Your task to perform on an android device: Go to internet settings Image 0: 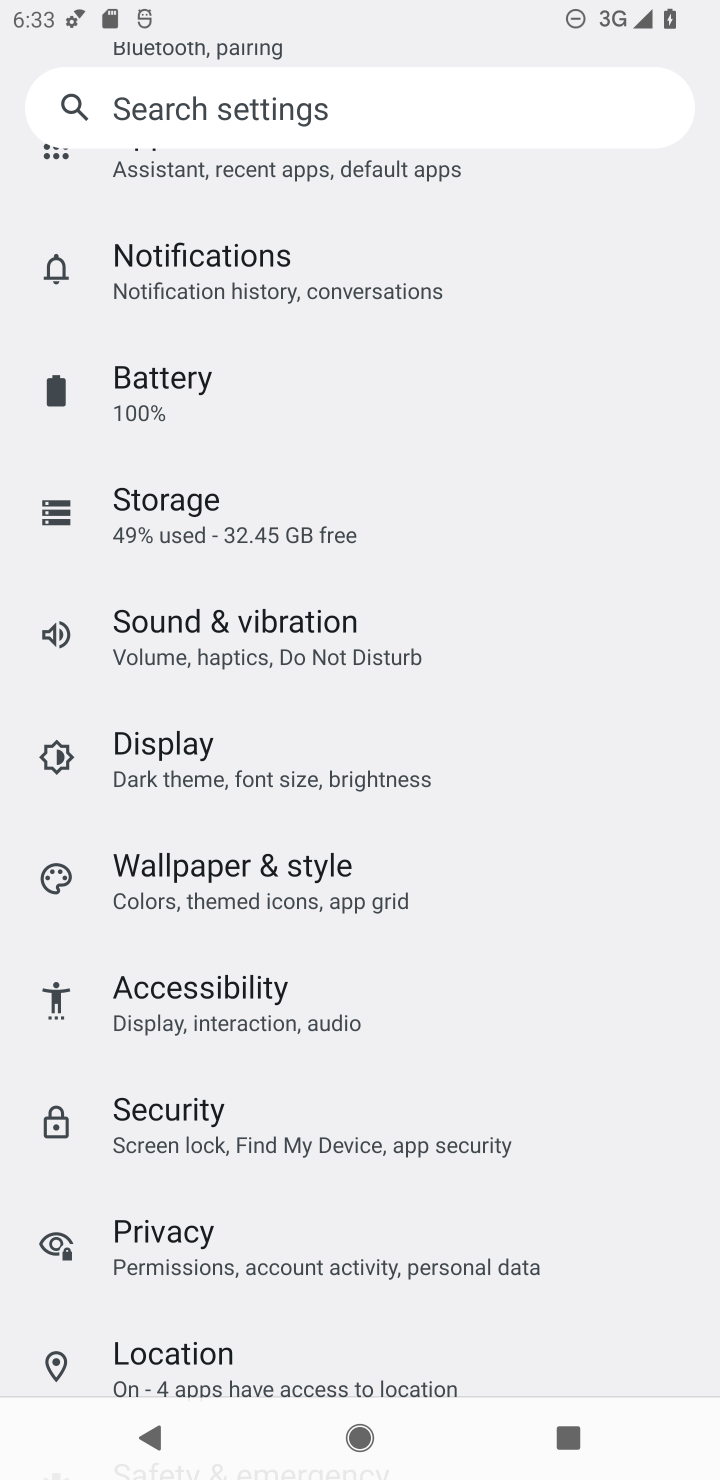
Step 0: drag from (336, 306) to (424, 965)
Your task to perform on an android device: Go to internet settings Image 1: 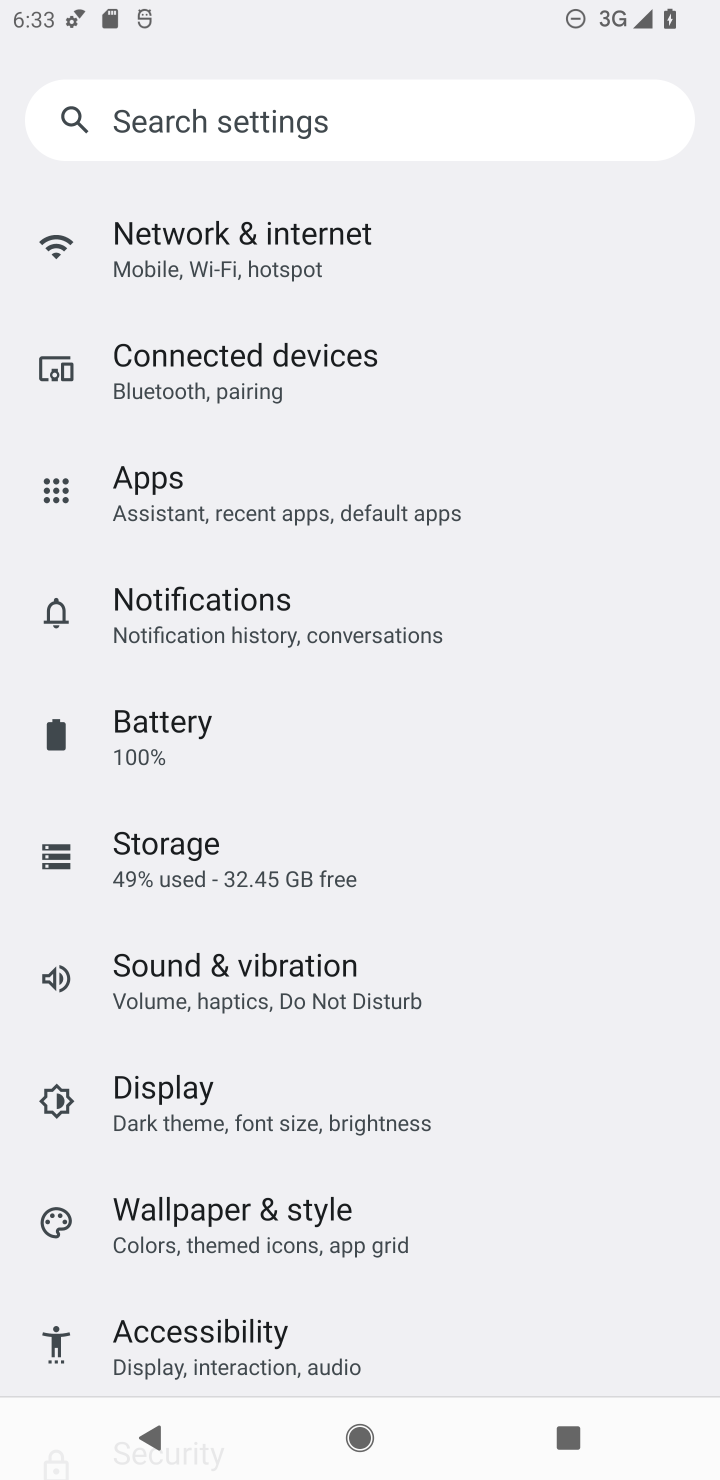
Step 1: click (307, 239)
Your task to perform on an android device: Go to internet settings Image 2: 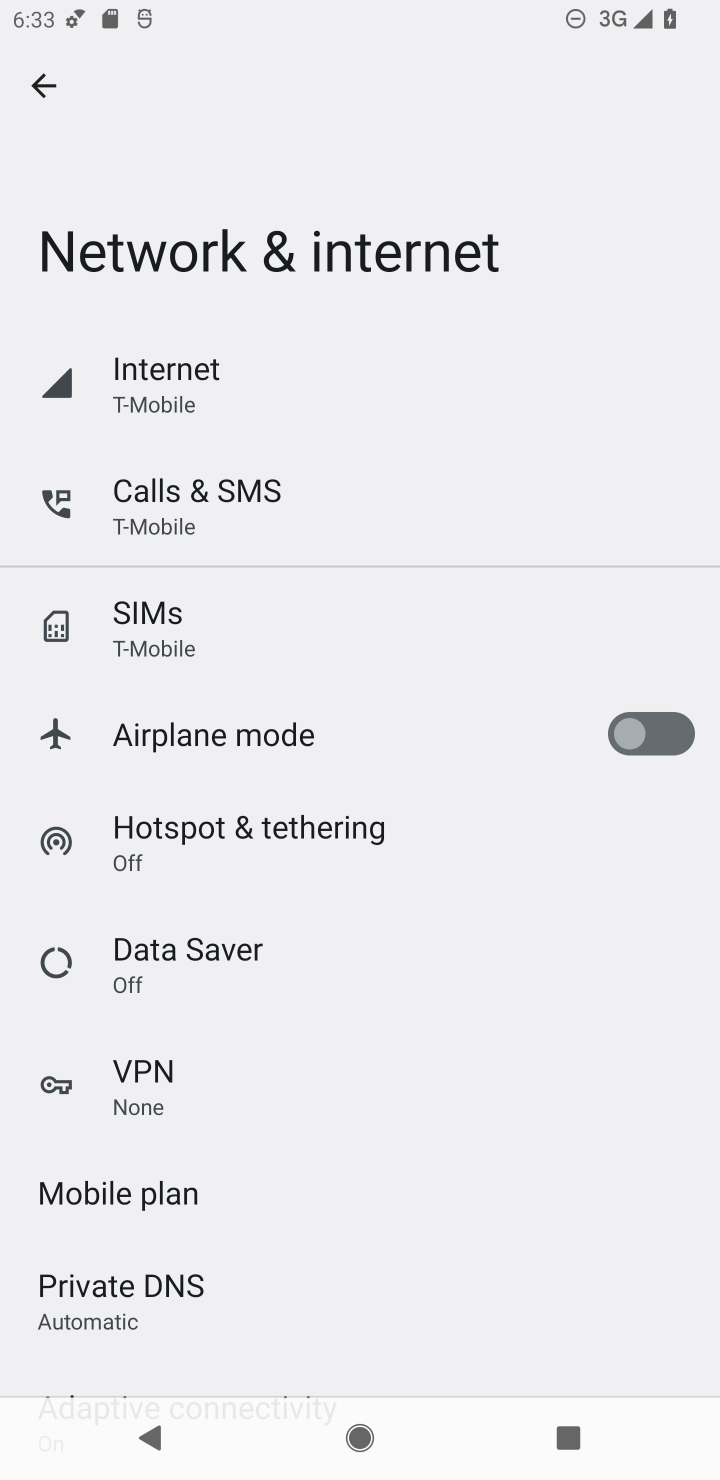
Step 2: click (180, 349)
Your task to perform on an android device: Go to internet settings Image 3: 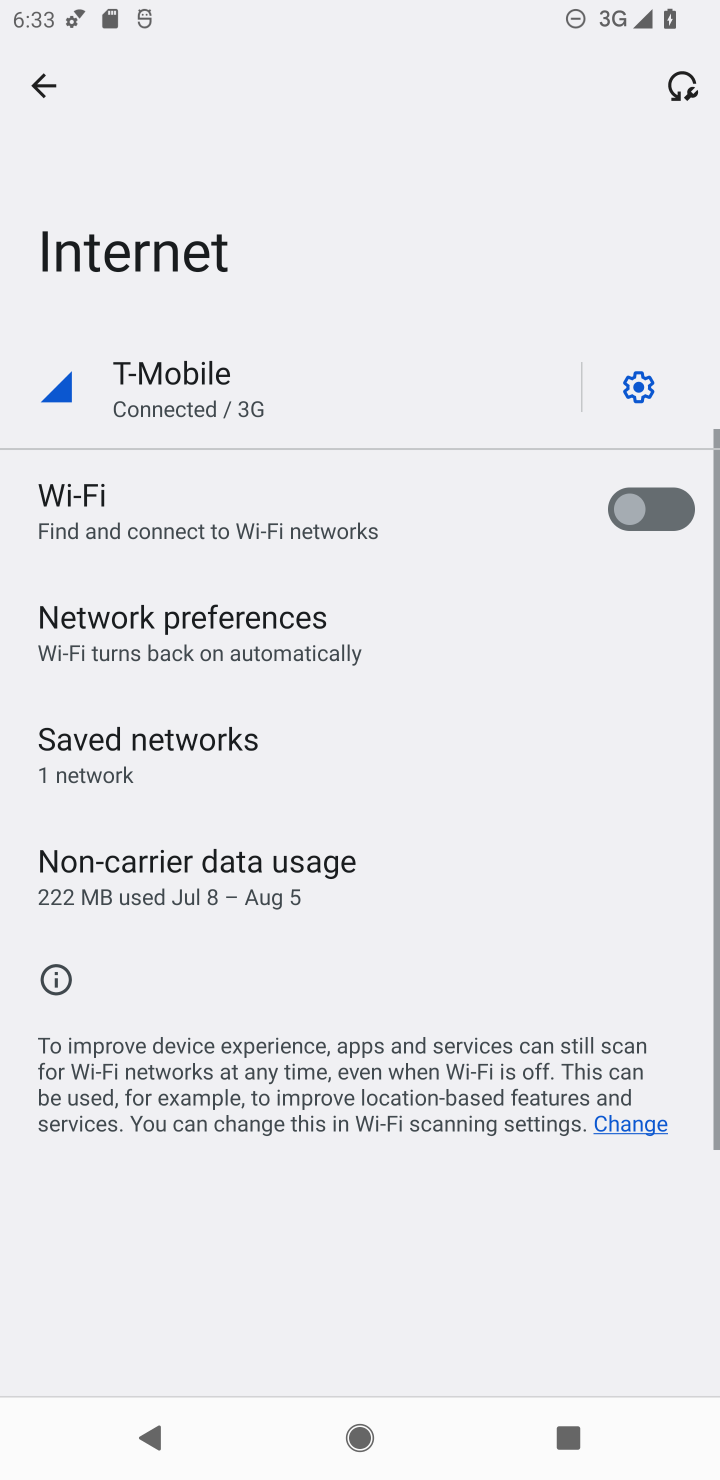
Step 3: task complete